Your task to perform on an android device: Open battery settings Image 0: 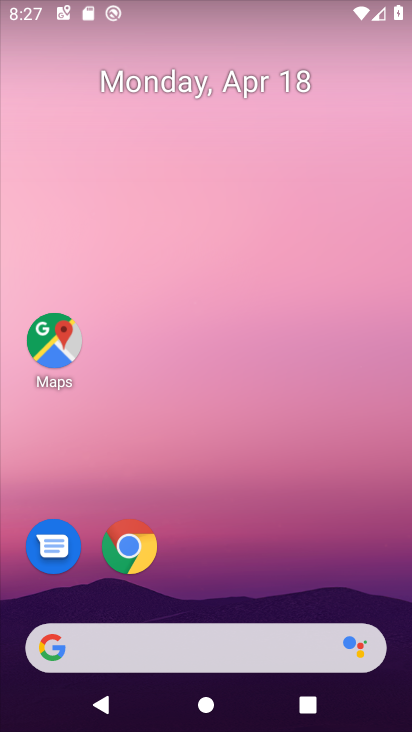
Step 0: drag from (326, 587) to (227, 267)
Your task to perform on an android device: Open battery settings Image 1: 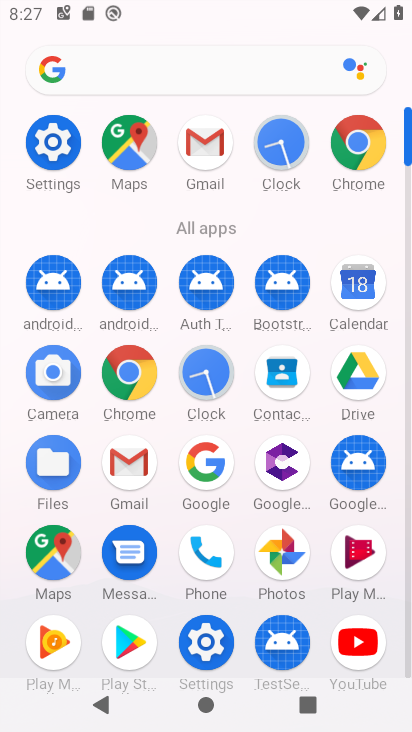
Step 1: click (57, 170)
Your task to perform on an android device: Open battery settings Image 2: 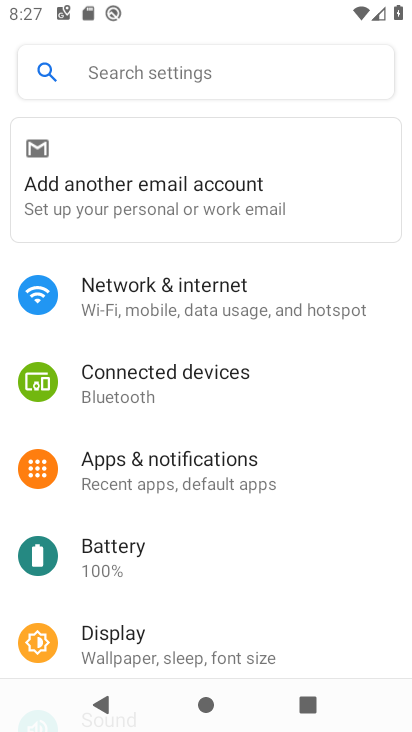
Step 2: click (219, 546)
Your task to perform on an android device: Open battery settings Image 3: 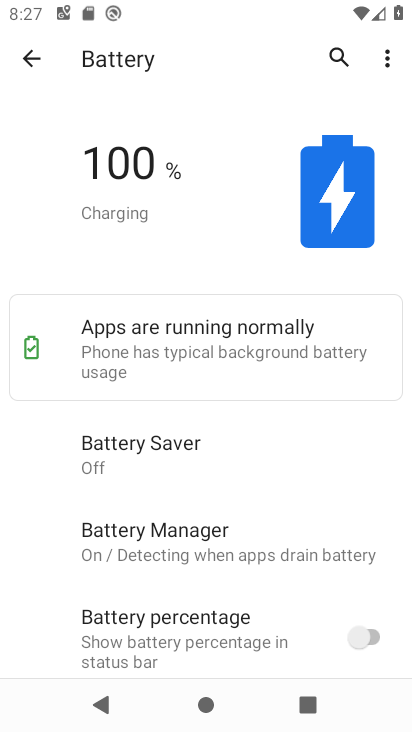
Step 3: task complete